Your task to perform on an android device: Go to Maps Image 0: 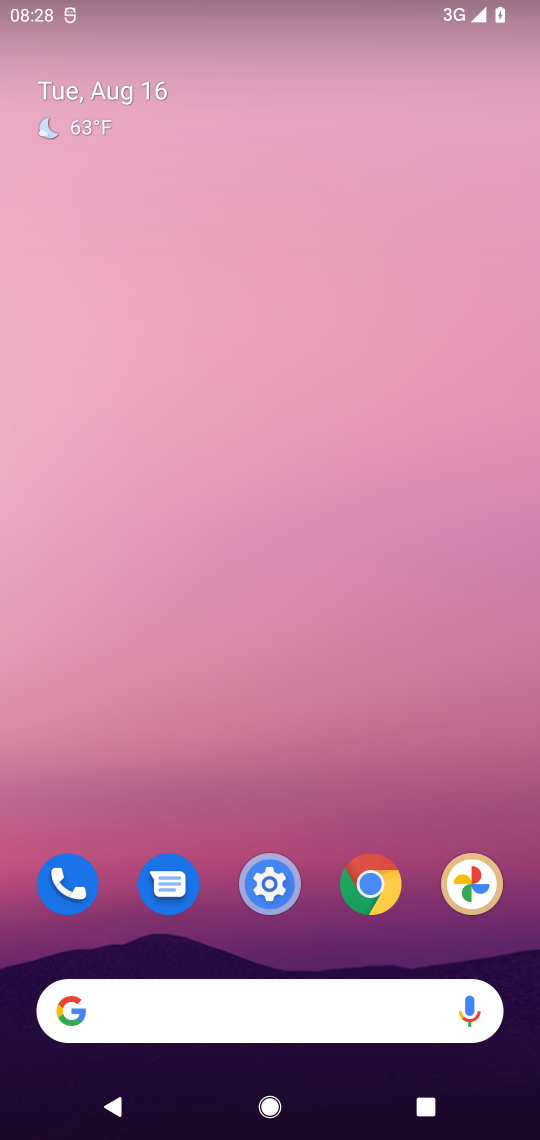
Step 0: press home button
Your task to perform on an android device: Go to Maps Image 1: 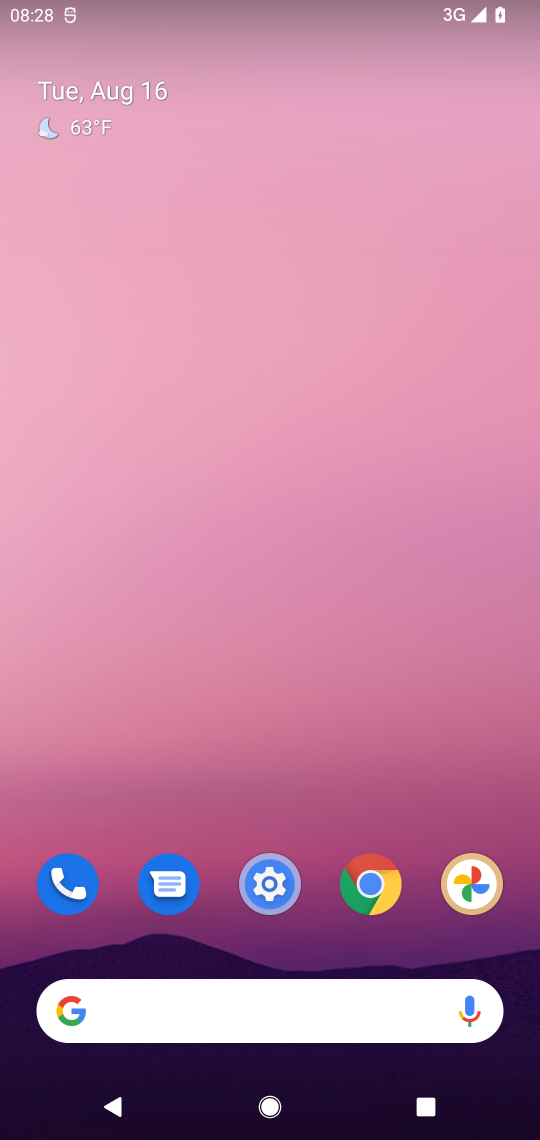
Step 1: drag from (248, 661) to (210, 15)
Your task to perform on an android device: Go to Maps Image 2: 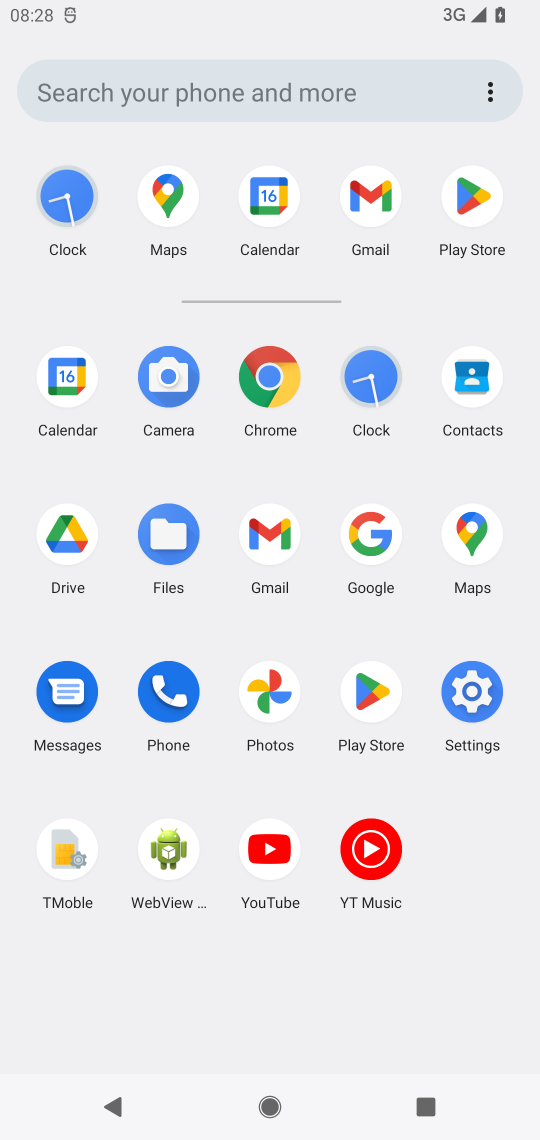
Step 2: click (171, 190)
Your task to perform on an android device: Go to Maps Image 3: 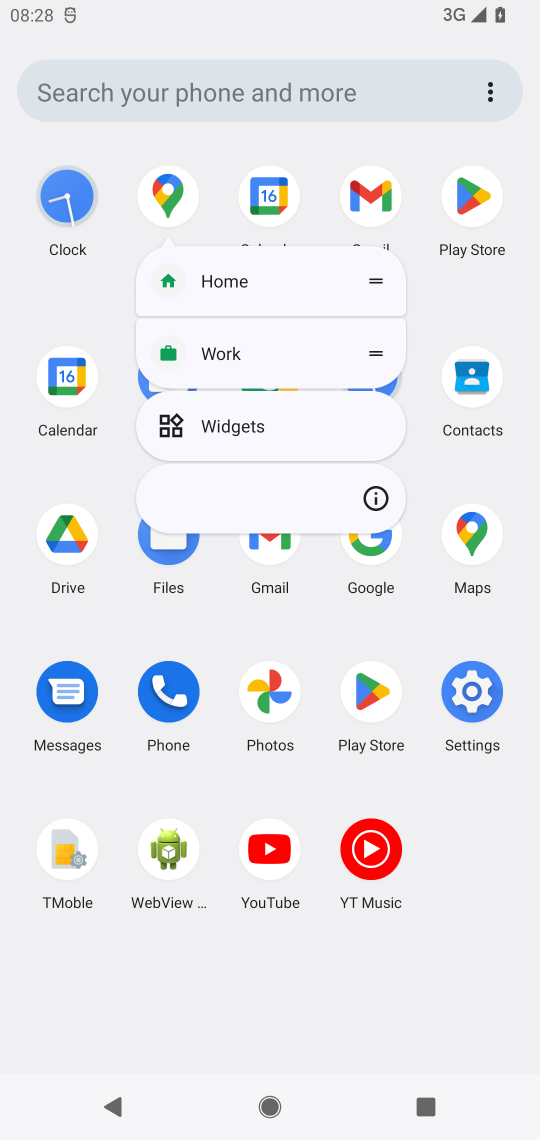
Step 3: click (171, 190)
Your task to perform on an android device: Go to Maps Image 4: 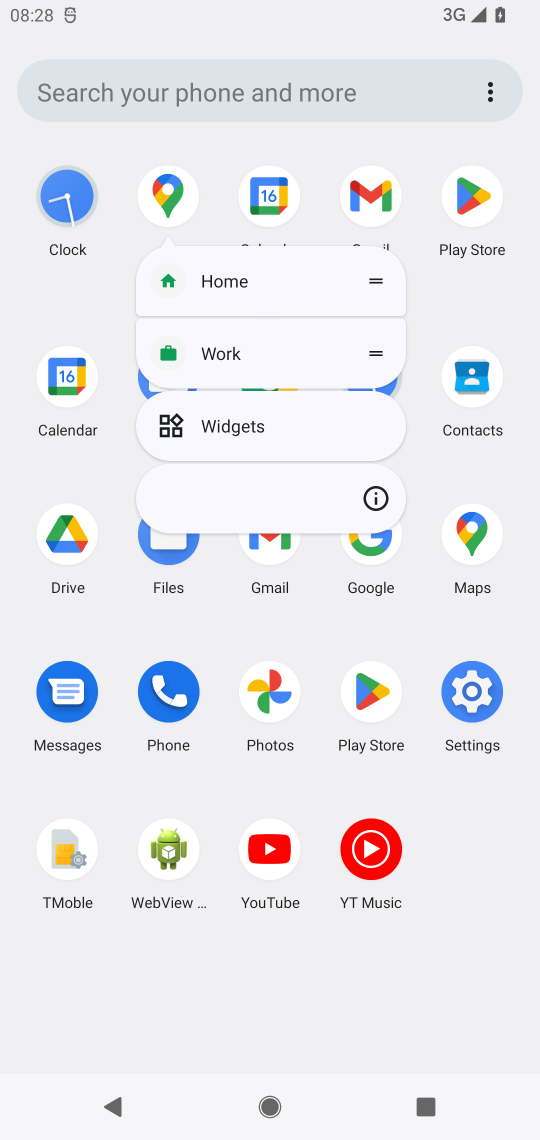
Step 4: click (181, 193)
Your task to perform on an android device: Go to Maps Image 5: 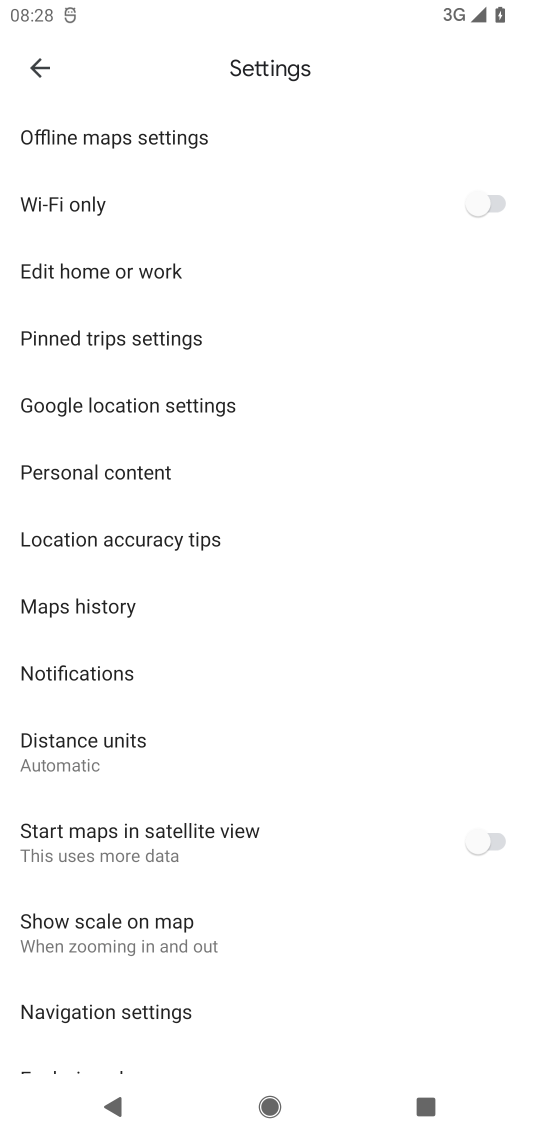
Step 5: click (29, 67)
Your task to perform on an android device: Go to Maps Image 6: 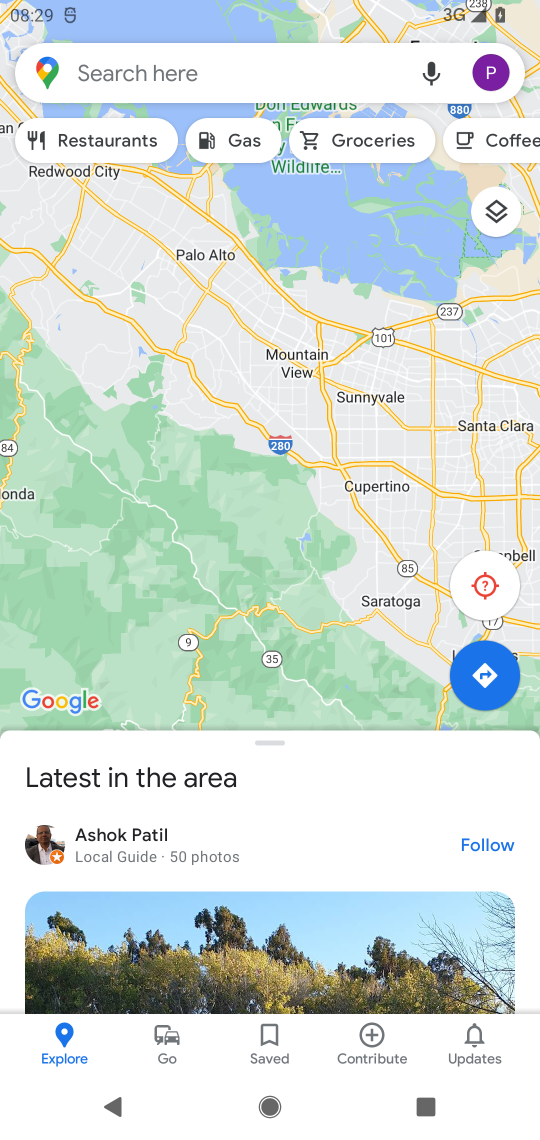
Step 6: task complete